Your task to perform on an android device: check the backup settings in the google photos Image 0: 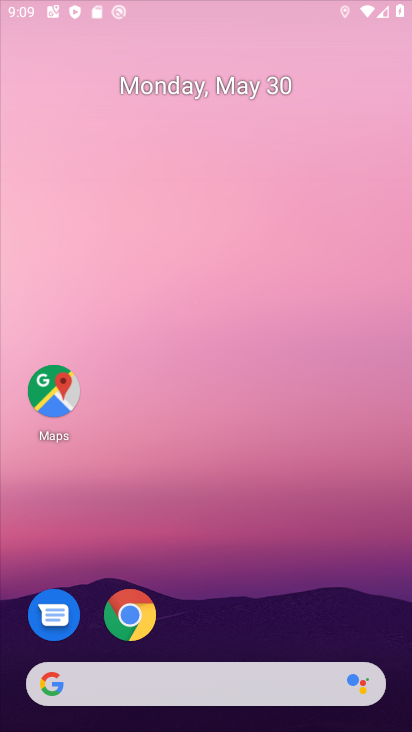
Step 0: drag from (319, 556) to (256, 22)
Your task to perform on an android device: check the backup settings in the google photos Image 1: 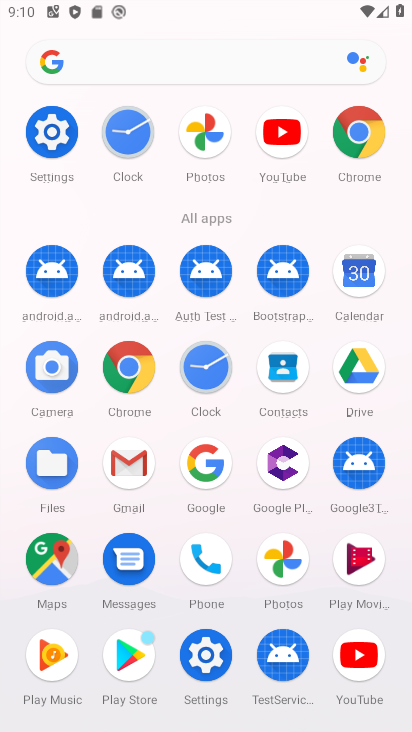
Step 1: click (279, 557)
Your task to perform on an android device: check the backup settings in the google photos Image 2: 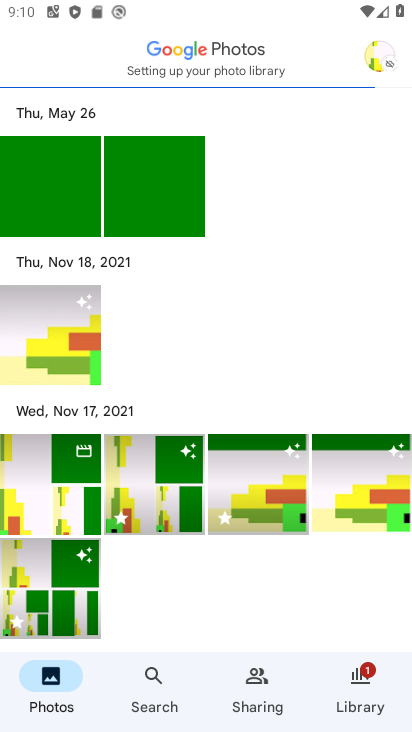
Step 2: click (377, 56)
Your task to perform on an android device: check the backup settings in the google photos Image 3: 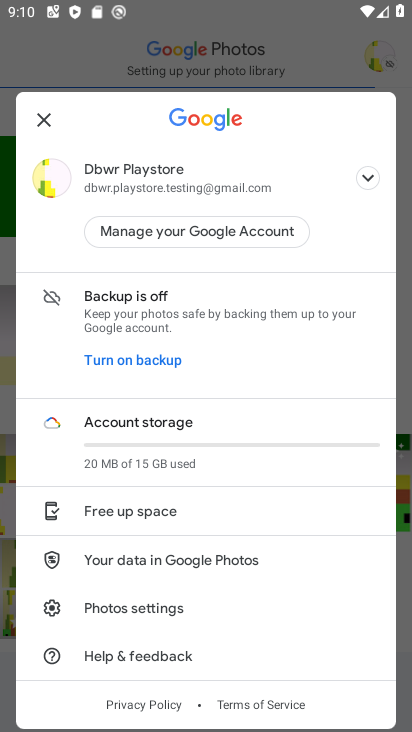
Step 3: drag from (221, 581) to (248, 253)
Your task to perform on an android device: check the backup settings in the google photos Image 4: 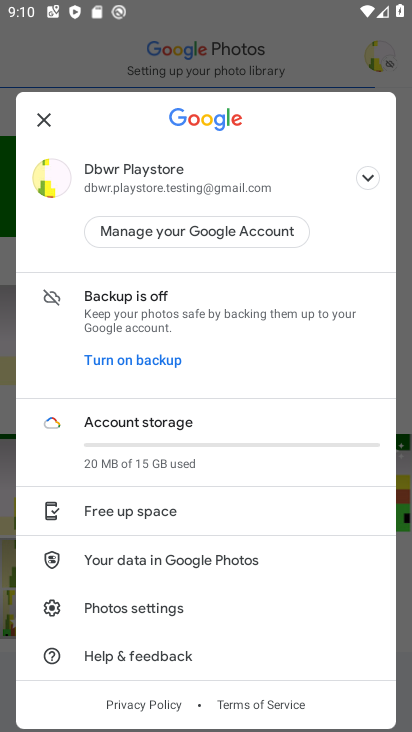
Step 4: click (183, 606)
Your task to perform on an android device: check the backup settings in the google photos Image 5: 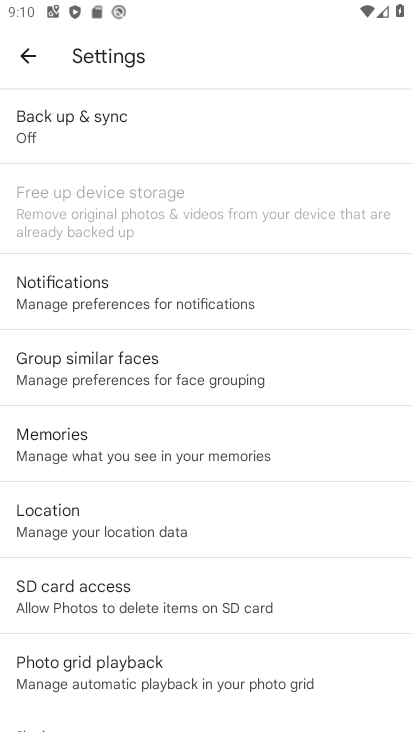
Step 5: click (130, 136)
Your task to perform on an android device: check the backup settings in the google photos Image 6: 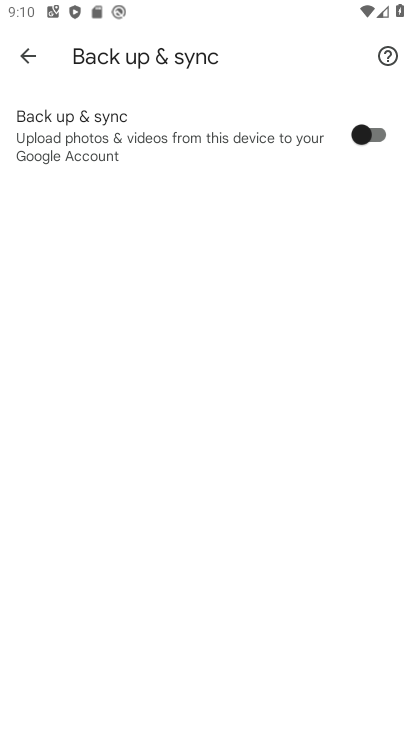
Step 6: task complete